Your task to perform on an android device: Check the news Image 0: 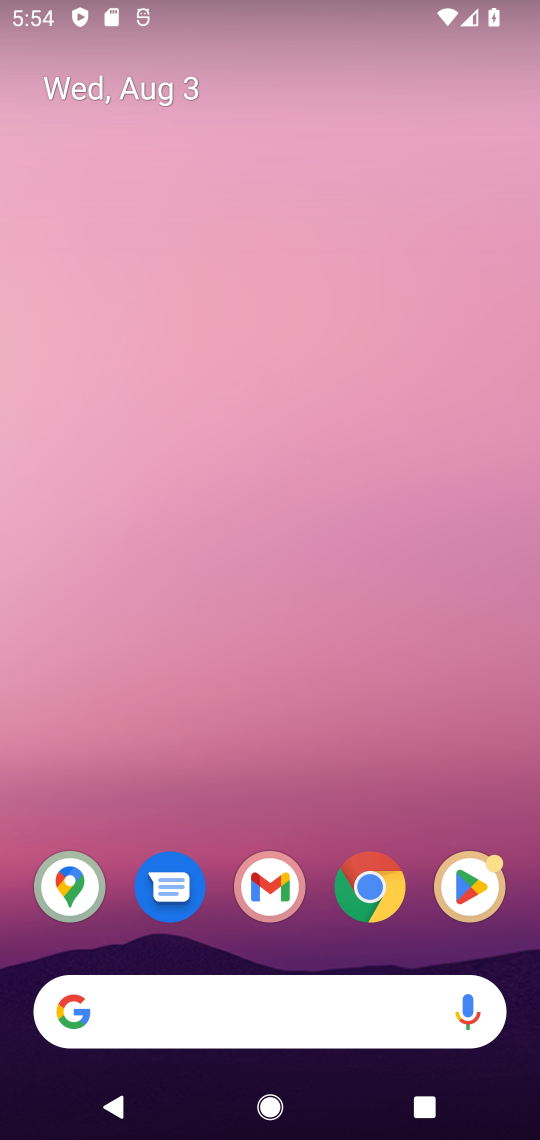
Step 0: drag from (271, 973) to (138, 6)
Your task to perform on an android device: Check the news Image 1: 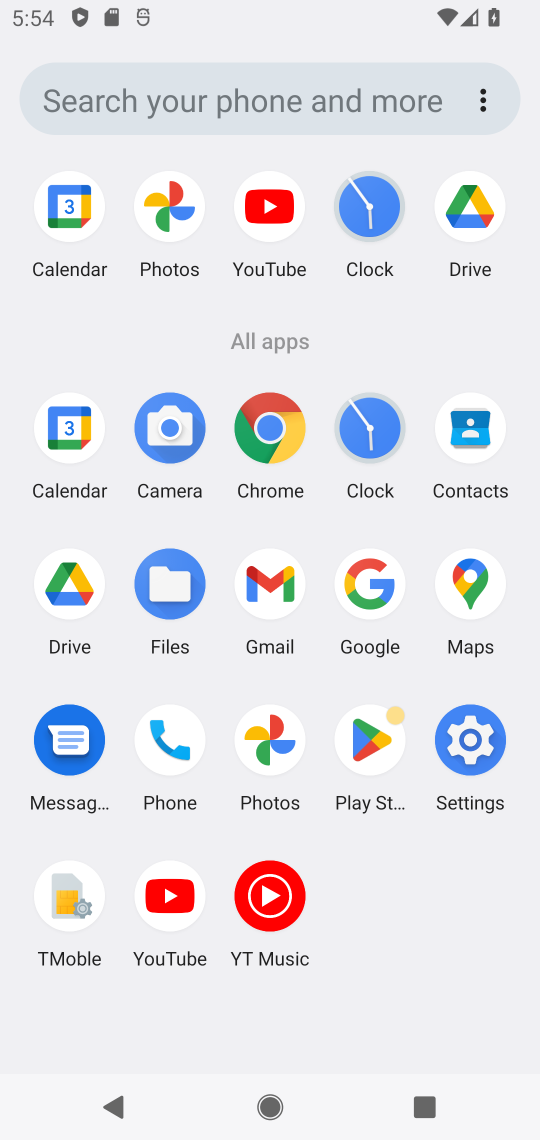
Step 1: click (367, 577)
Your task to perform on an android device: Check the news Image 2: 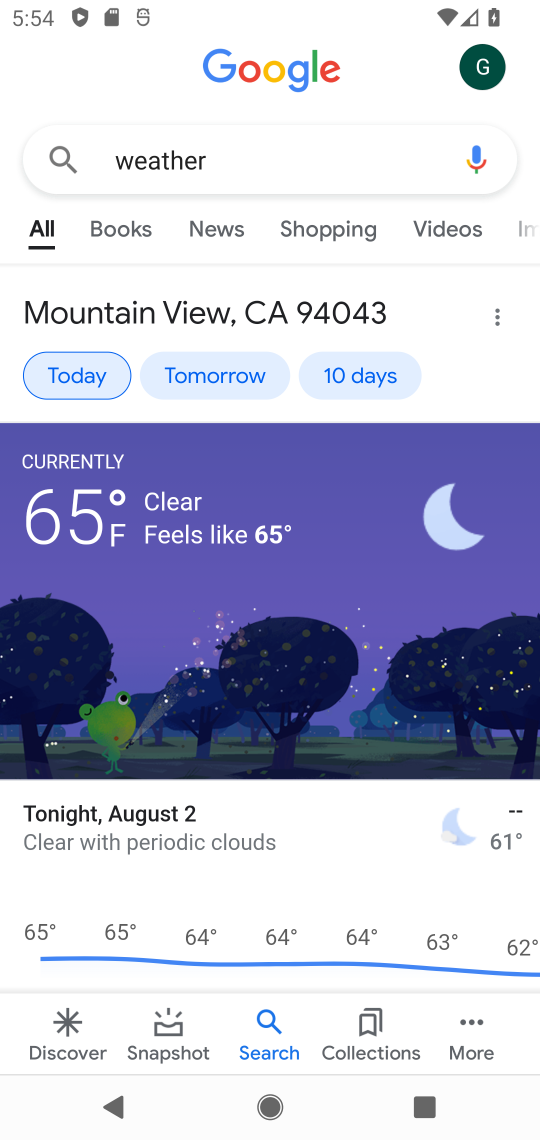
Step 2: click (243, 174)
Your task to perform on an android device: Check the news Image 3: 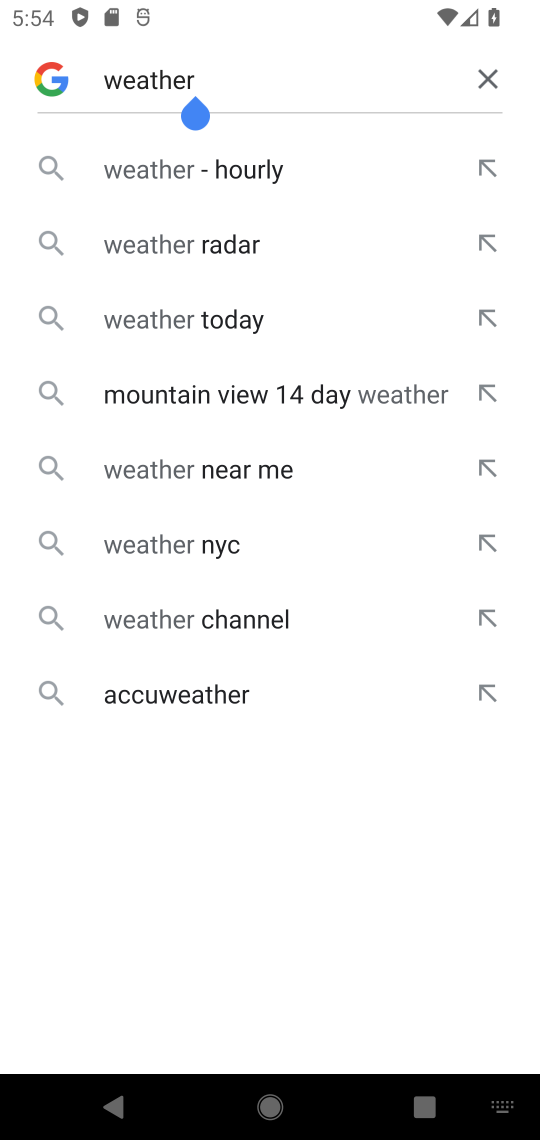
Step 3: click (486, 86)
Your task to perform on an android device: Check the news Image 4: 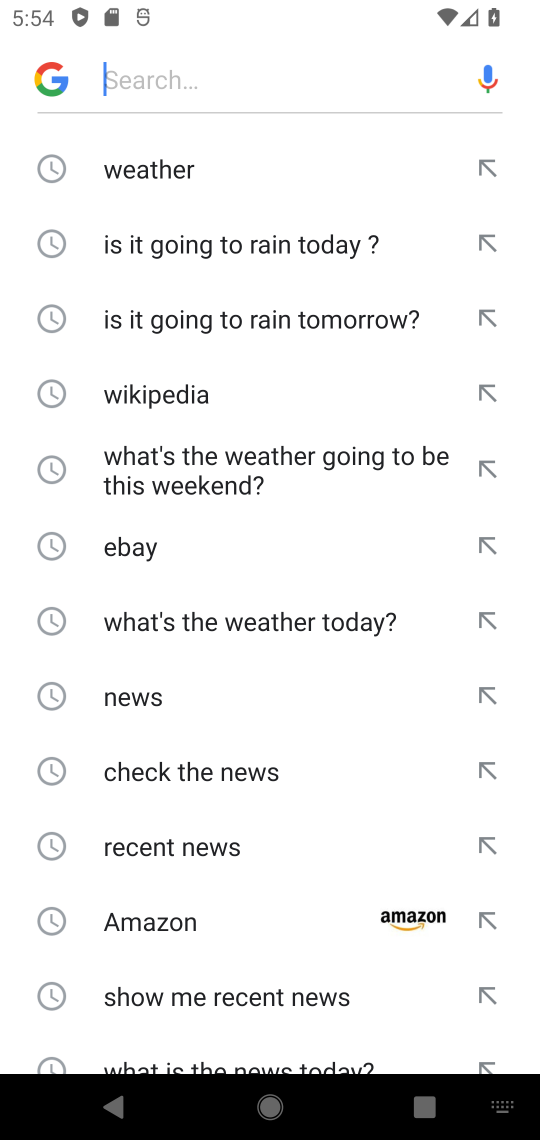
Step 4: click (165, 696)
Your task to perform on an android device: Check the news Image 5: 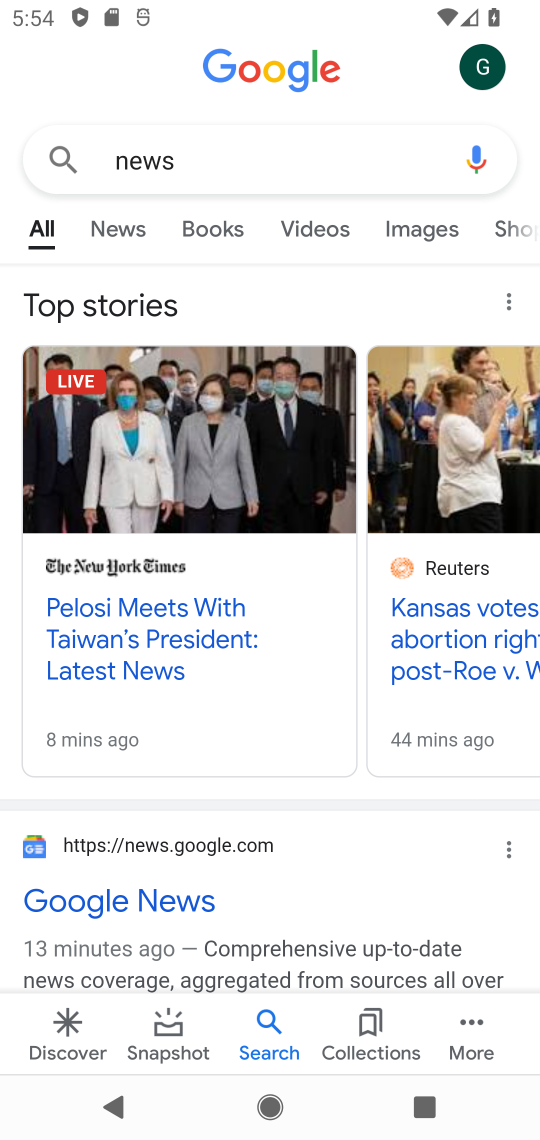
Step 5: task complete